Your task to perform on an android device: find photos in the google photos app Image 0: 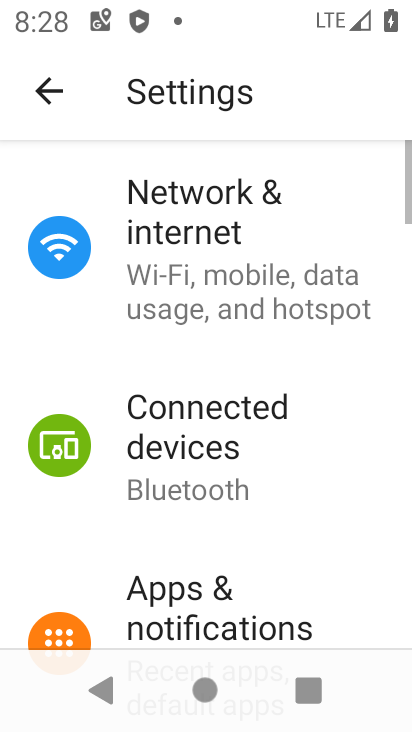
Step 0: press home button
Your task to perform on an android device: find photos in the google photos app Image 1: 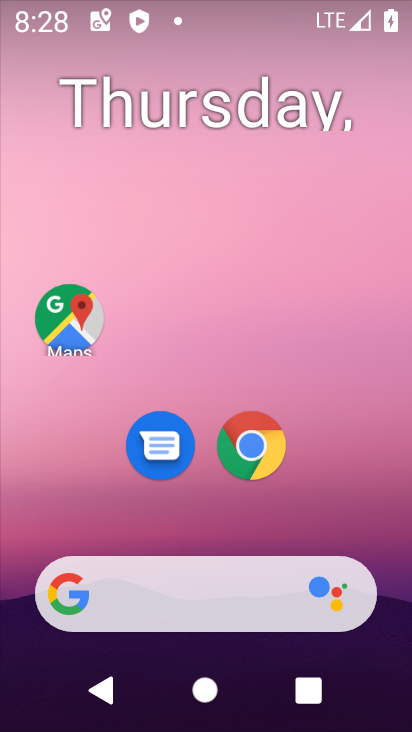
Step 1: drag from (393, 628) to (284, 26)
Your task to perform on an android device: find photos in the google photos app Image 2: 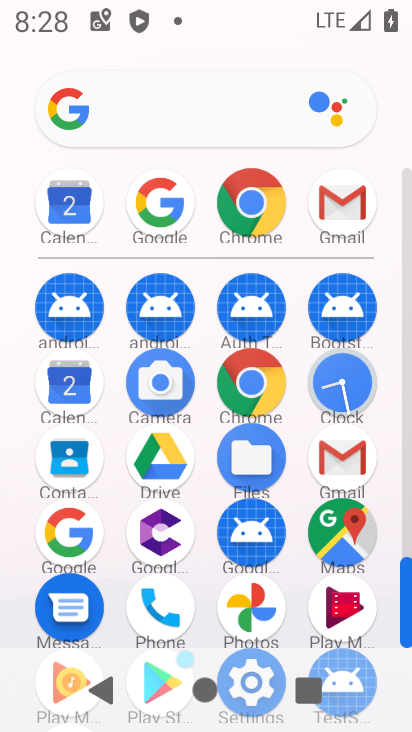
Step 2: click (240, 601)
Your task to perform on an android device: find photos in the google photos app Image 3: 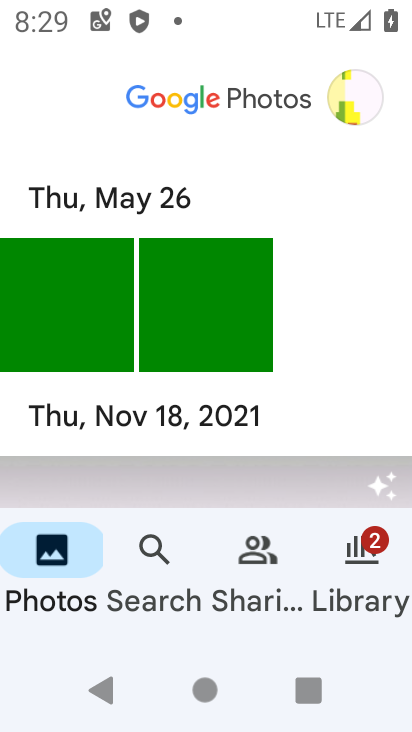
Step 3: task complete